Your task to perform on an android device: turn on translation in the chrome app Image 0: 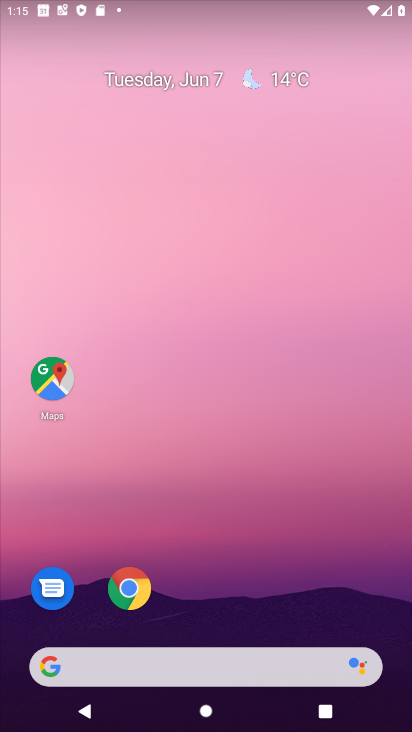
Step 0: click (146, 586)
Your task to perform on an android device: turn on translation in the chrome app Image 1: 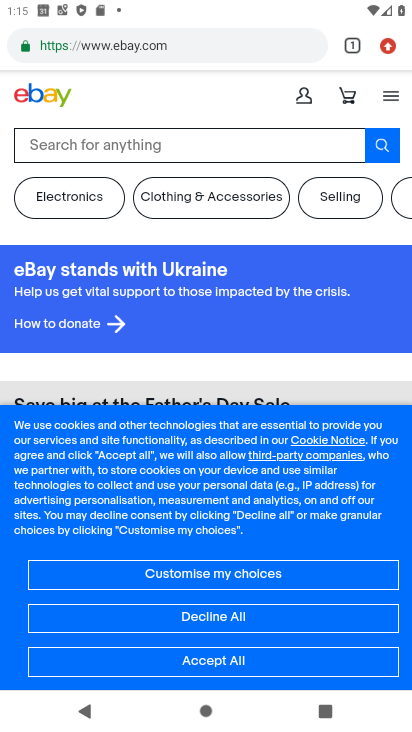
Step 1: click (380, 47)
Your task to perform on an android device: turn on translation in the chrome app Image 2: 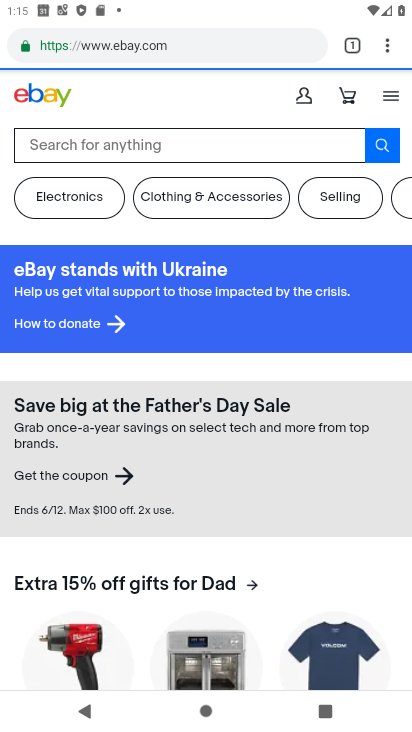
Step 2: click (389, 46)
Your task to perform on an android device: turn on translation in the chrome app Image 3: 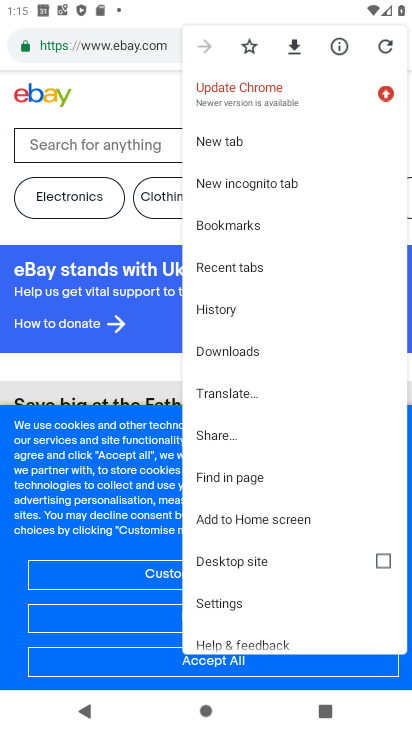
Step 3: click (252, 600)
Your task to perform on an android device: turn on translation in the chrome app Image 4: 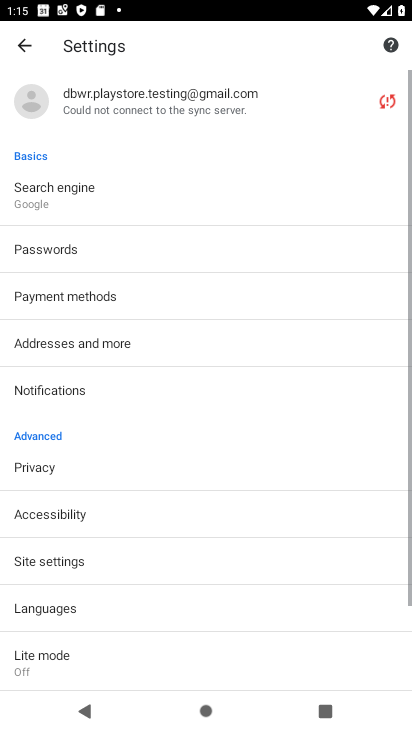
Step 4: drag from (194, 614) to (204, 192)
Your task to perform on an android device: turn on translation in the chrome app Image 5: 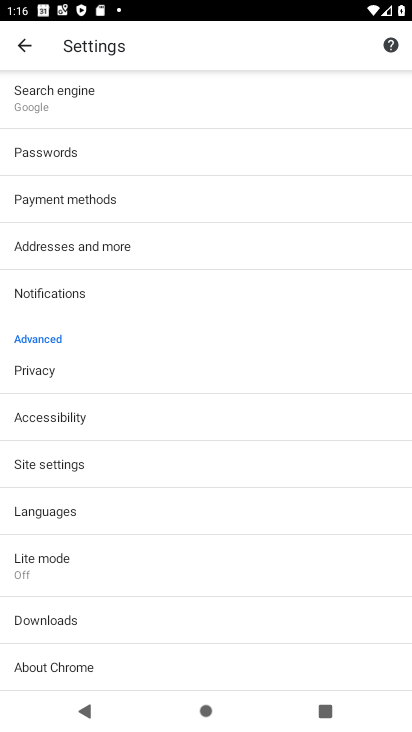
Step 5: click (172, 515)
Your task to perform on an android device: turn on translation in the chrome app Image 6: 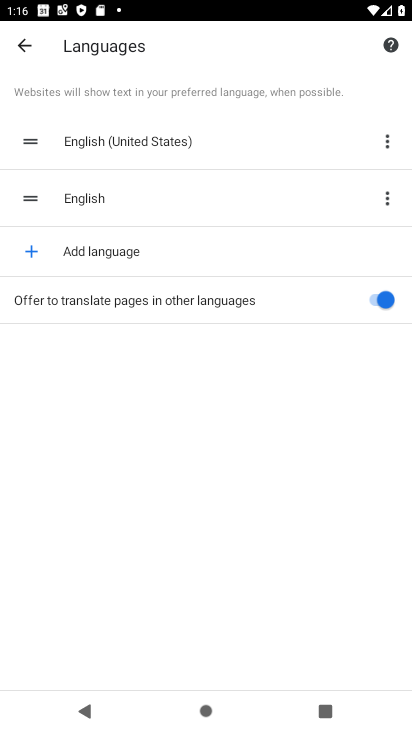
Step 6: task complete